Your task to perform on an android device: find snoozed emails in the gmail app Image 0: 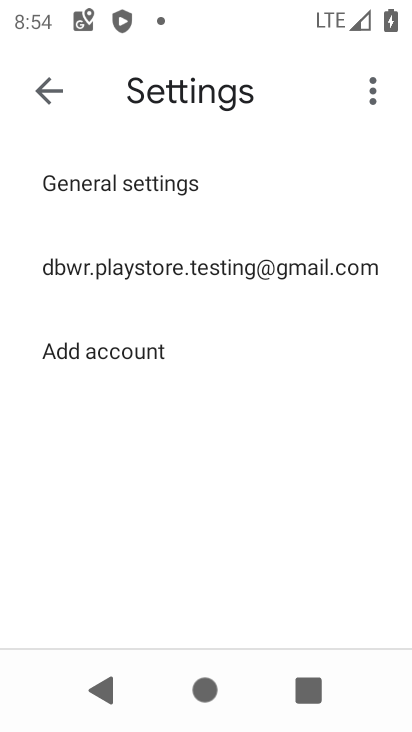
Step 0: press home button
Your task to perform on an android device: find snoozed emails in the gmail app Image 1: 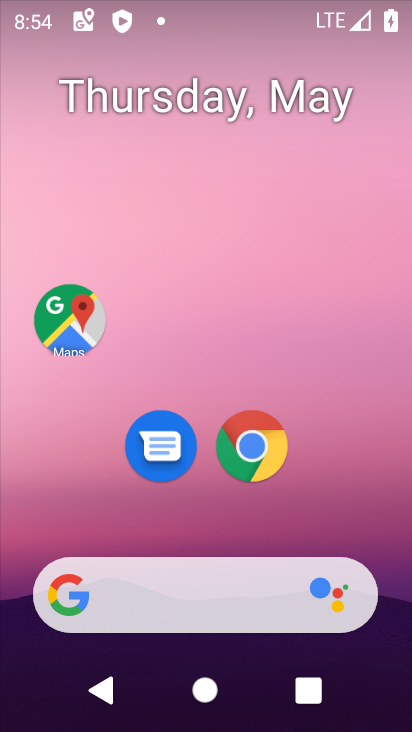
Step 1: drag from (398, 606) to (347, 79)
Your task to perform on an android device: find snoozed emails in the gmail app Image 2: 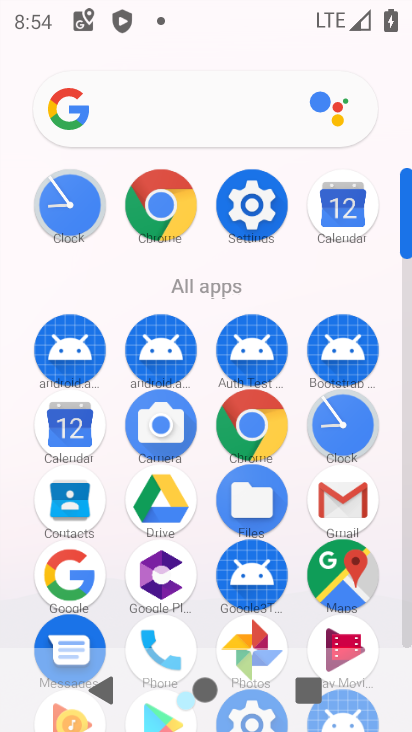
Step 2: click (406, 630)
Your task to perform on an android device: find snoozed emails in the gmail app Image 3: 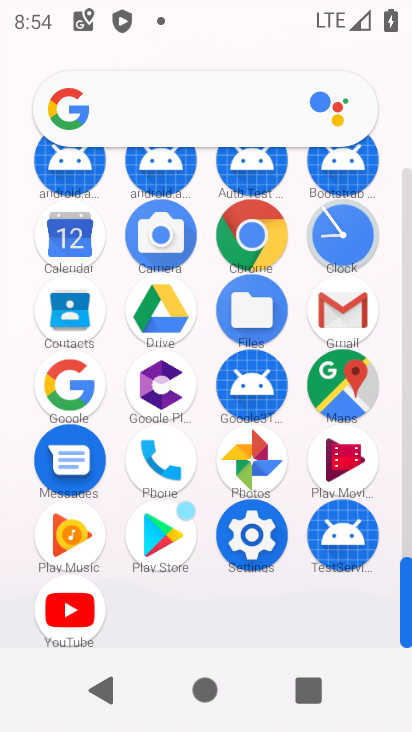
Step 3: click (341, 302)
Your task to perform on an android device: find snoozed emails in the gmail app Image 4: 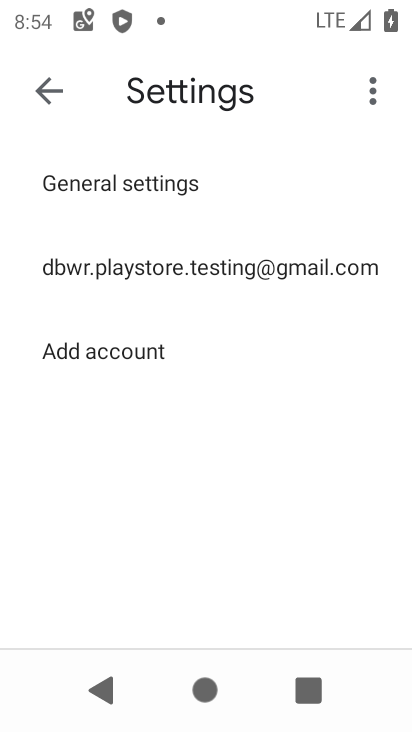
Step 4: press back button
Your task to perform on an android device: find snoozed emails in the gmail app Image 5: 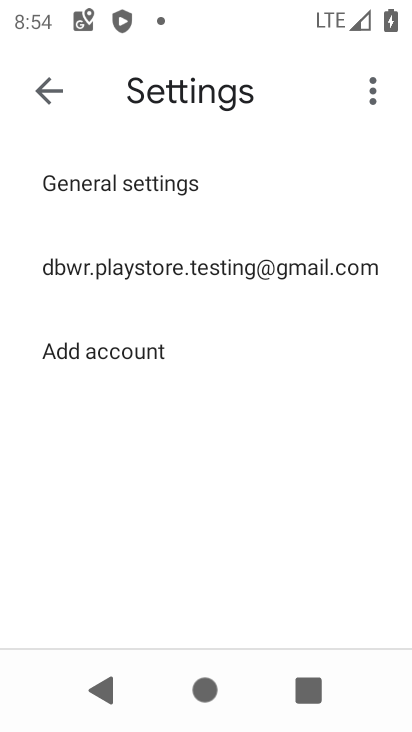
Step 5: press back button
Your task to perform on an android device: find snoozed emails in the gmail app Image 6: 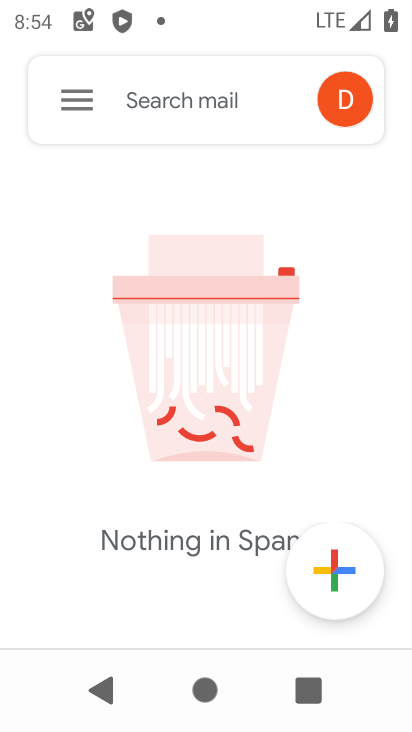
Step 6: click (68, 99)
Your task to perform on an android device: find snoozed emails in the gmail app Image 7: 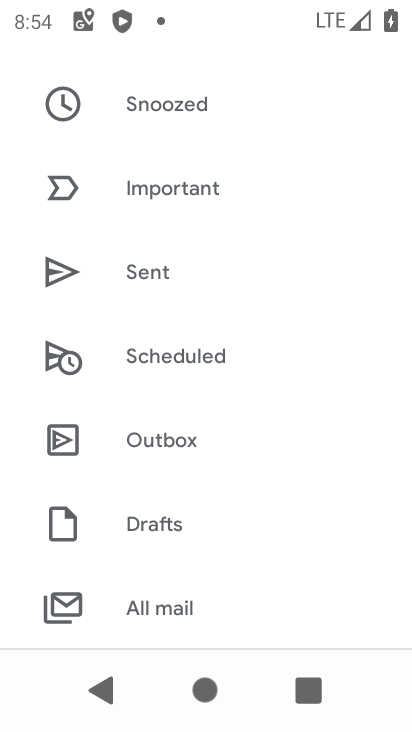
Step 7: drag from (282, 125) to (254, 437)
Your task to perform on an android device: find snoozed emails in the gmail app Image 8: 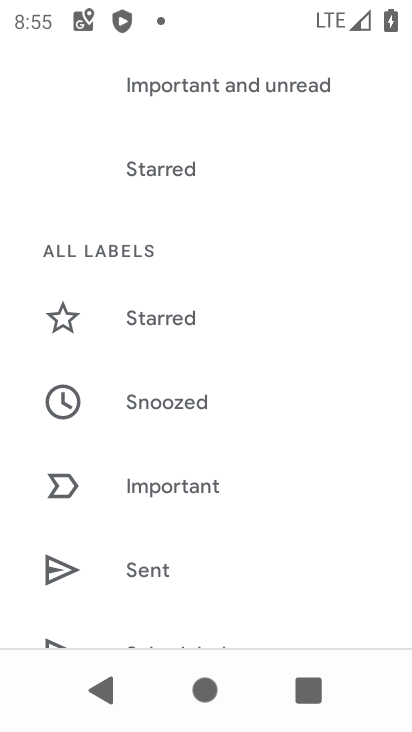
Step 8: click (144, 400)
Your task to perform on an android device: find snoozed emails in the gmail app Image 9: 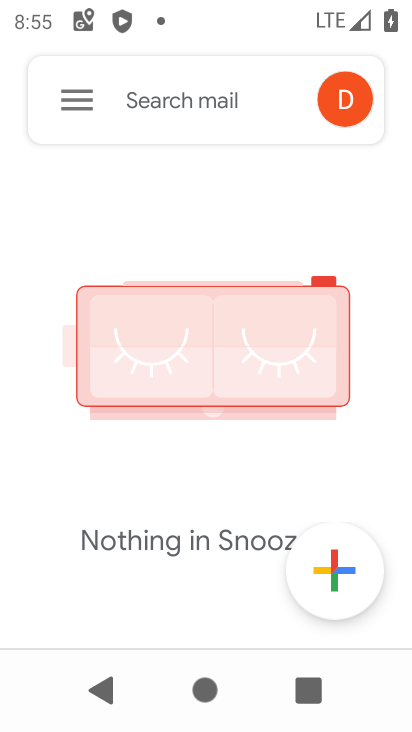
Step 9: task complete